Your task to perform on an android device: toggle javascript in the chrome app Image 0: 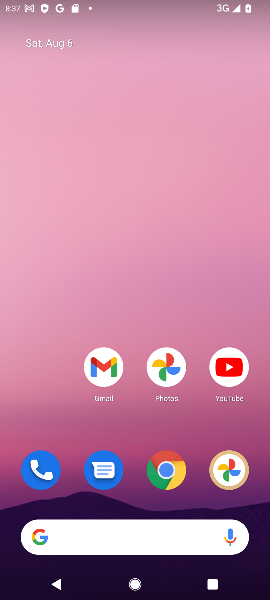
Step 0: click (163, 516)
Your task to perform on an android device: toggle javascript in the chrome app Image 1: 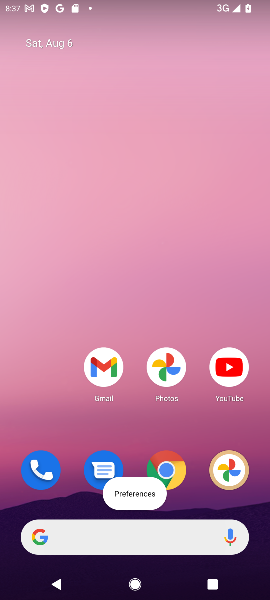
Step 1: drag from (163, 516) to (184, 308)
Your task to perform on an android device: toggle javascript in the chrome app Image 2: 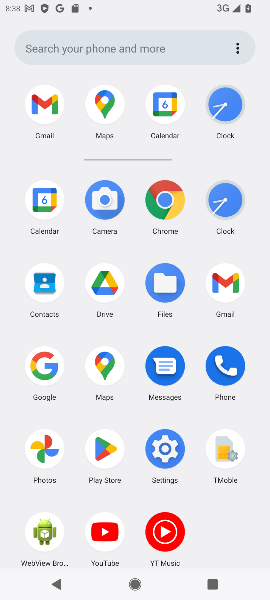
Step 2: click (161, 225)
Your task to perform on an android device: toggle javascript in the chrome app Image 3: 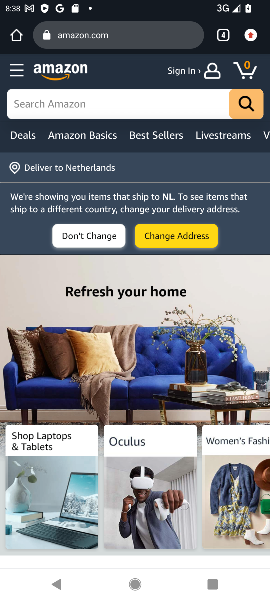
Step 3: click (256, 35)
Your task to perform on an android device: toggle javascript in the chrome app Image 4: 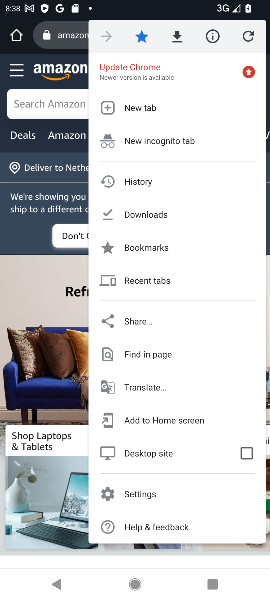
Step 4: click (121, 494)
Your task to perform on an android device: toggle javascript in the chrome app Image 5: 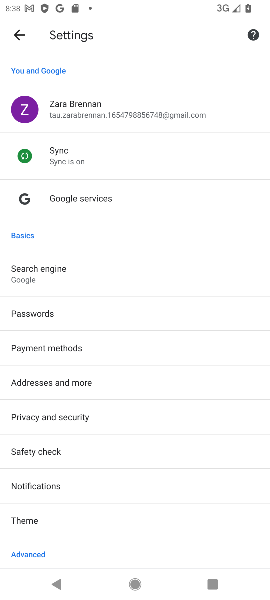
Step 5: drag from (104, 523) to (133, 231)
Your task to perform on an android device: toggle javascript in the chrome app Image 6: 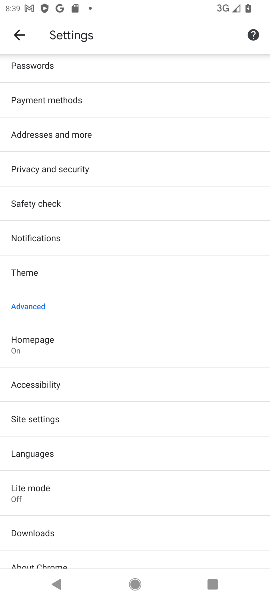
Step 6: click (37, 423)
Your task to perform on an android device: toggle javascript in the chrome app Image 7: 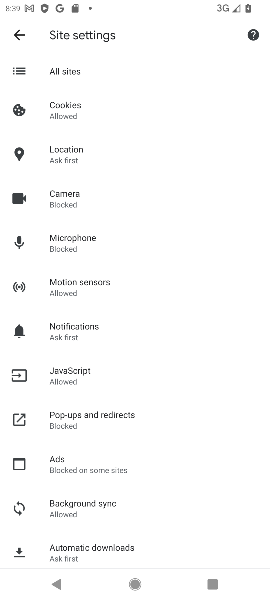
Step 7: click (79, 372)
Your task to perform on an android device: toggle javascript in the chrome app Image 8: 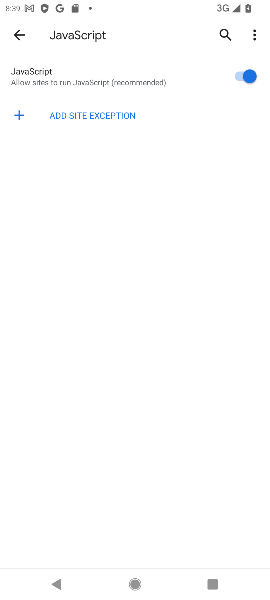
Step 8: click (168, 82)
Your task to perform on an android device: toggle javascript in the chrome app Image 9: 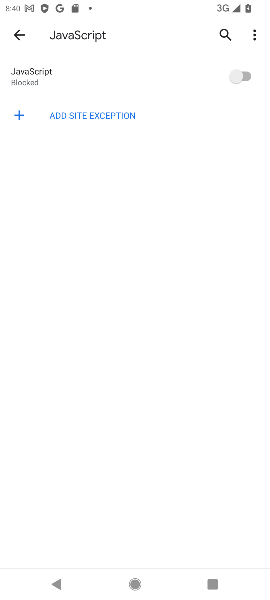
Step 9: task complete